Your task to perform on an android device: turn on javascript in the chrome app Image 0: 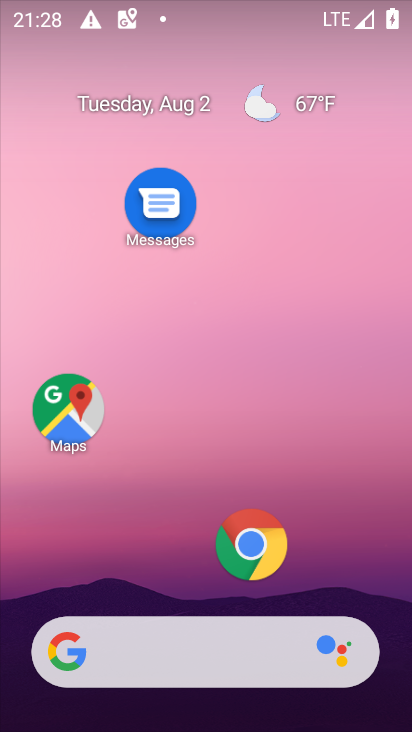
Step 0: click (261, 558)
Your task to perform on an android device: turn on javascript in the chrome app Image 1: 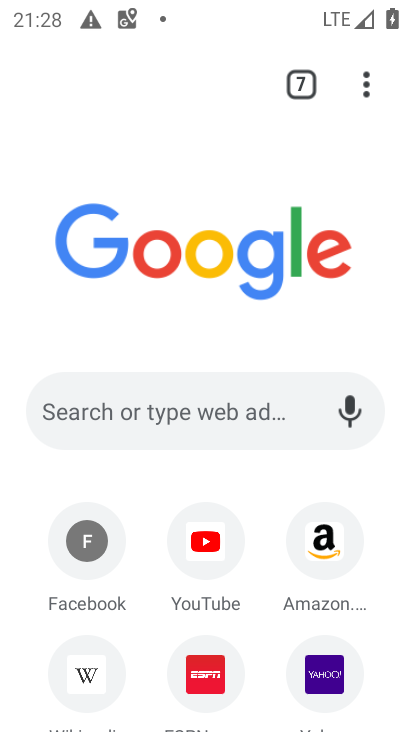
Step 1: click (357, 84)
Your task to perform on an android device: turn on javascript in the chrome app Image 2: 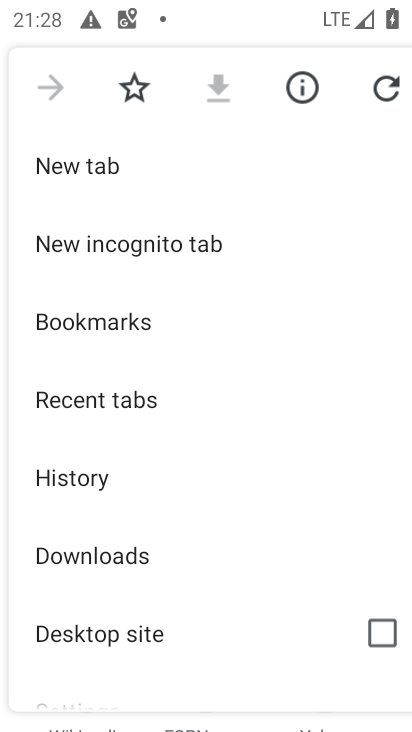
Step 2: drag from (157, 666) to (166, 307)
Your task to perform on an android device: turn on javascript in the chrome app Image 3: 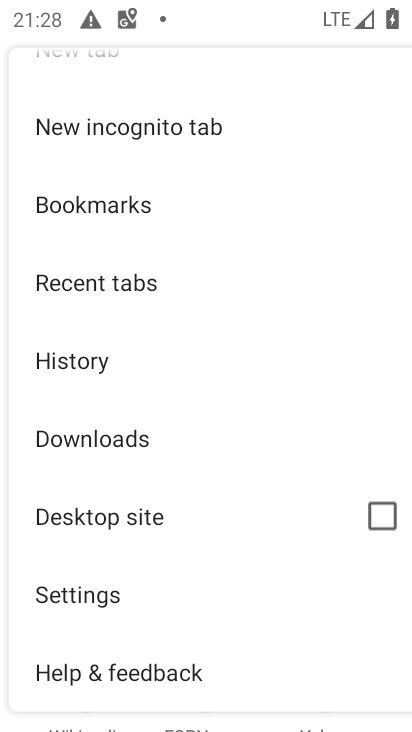
Step 3: click (98, 597)
Your task to perform on an android device: turn on javascript in the chrome app Image 4: 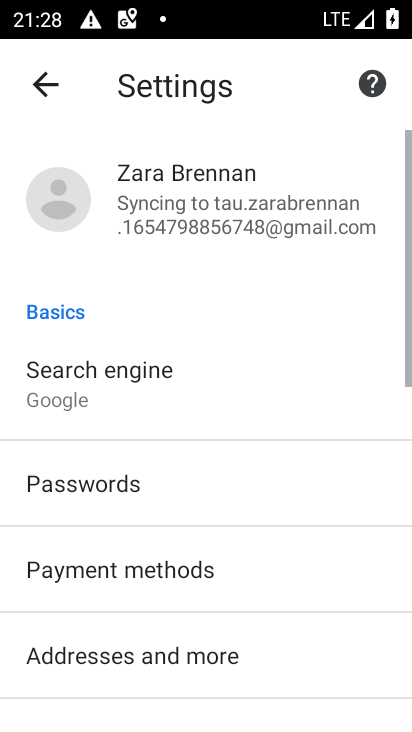
Step 4: drag from (208, 637) to (240, 200)
Your task to perform on an android device: turn on javascript in the chrome app Image 5: 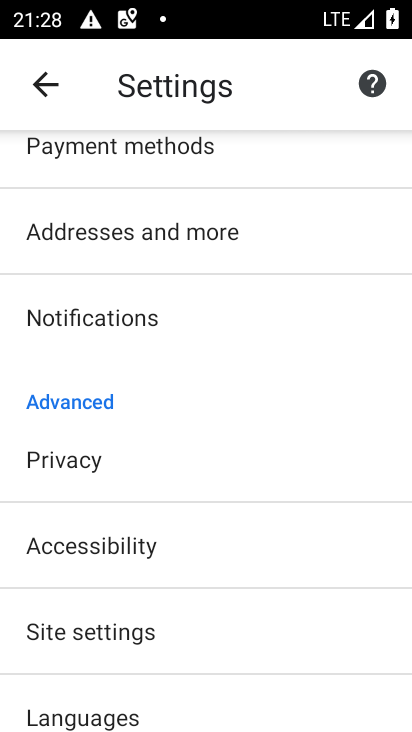
Step 5: click (145, 616)
Your task to perform on an android device: turn on javascript in the chrome app Image 6: 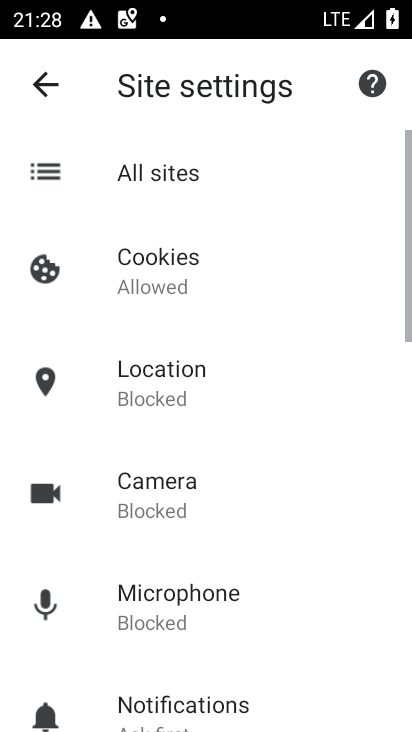
Step 6: drag from (208, 659) to (250, 224)
Your task to perform on an android device: turn on javascript in the chrome app Image 7: 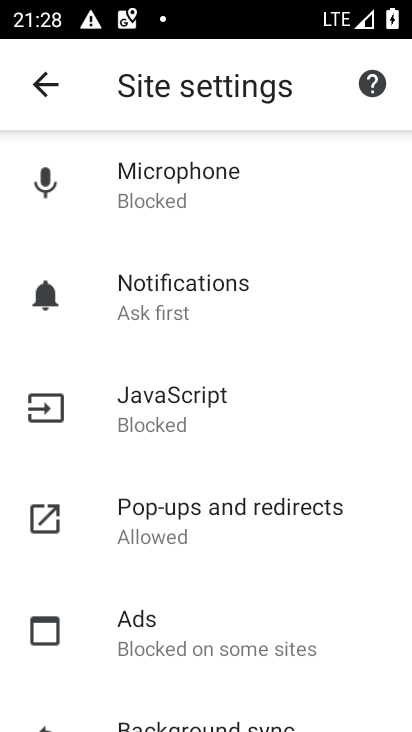
Step 7: drag from (160, 636) to (195, 391)
Your task to perform on an android device: turn on javascript in the chrome app Image 8: 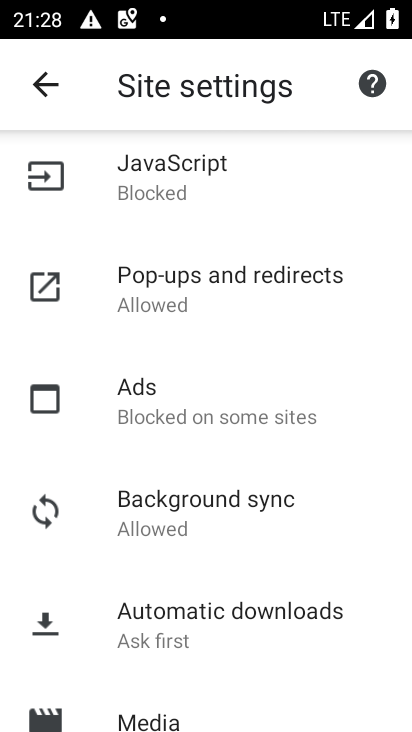
Step 8: click (201, 185)
Your task to perform on an android device: turn on javascript in the chrome app Image 9: 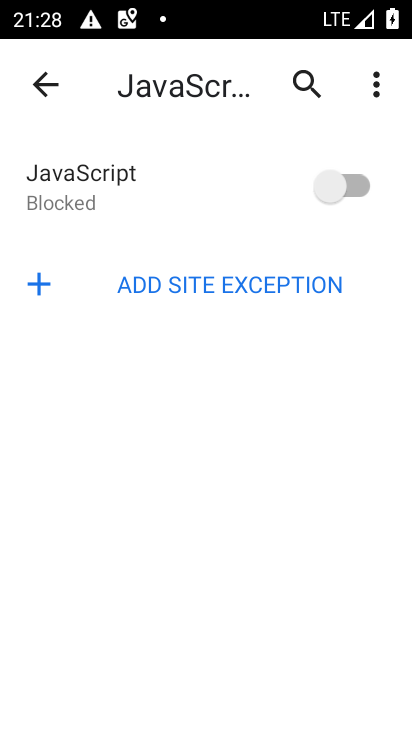
Step 9: click (350, 190)
Your task to perform on an android device: turn on javascript in the chrome app Image 10: 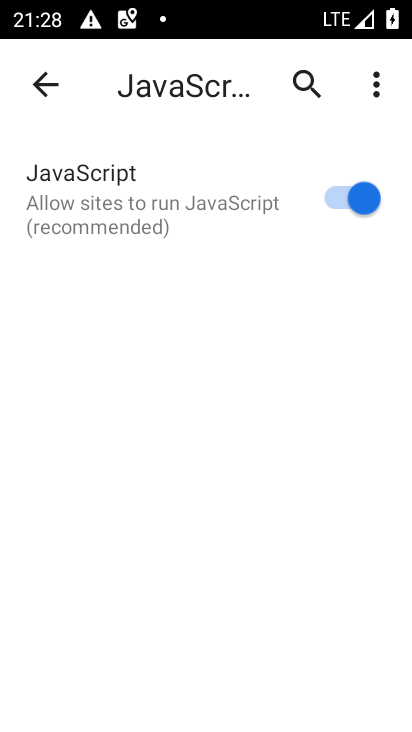
Step 10: task complete